Your task to perform on an android device: Check the settings for the Amazon Alexa app Image 0: 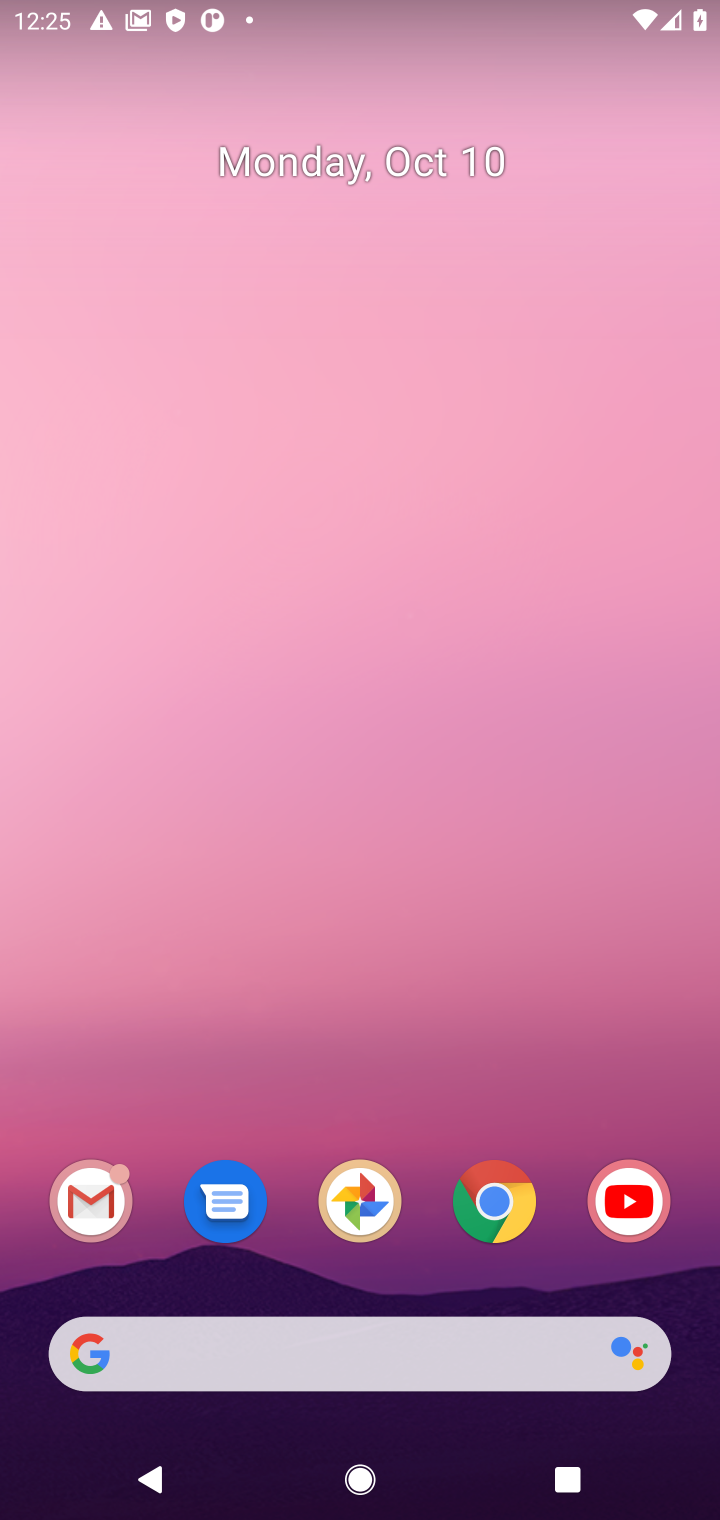
Step 0: drag from (419, 1145) to (446, 162)
Your task to perform on an android device: Check the settings for the Amazon Alexa app Image 1: 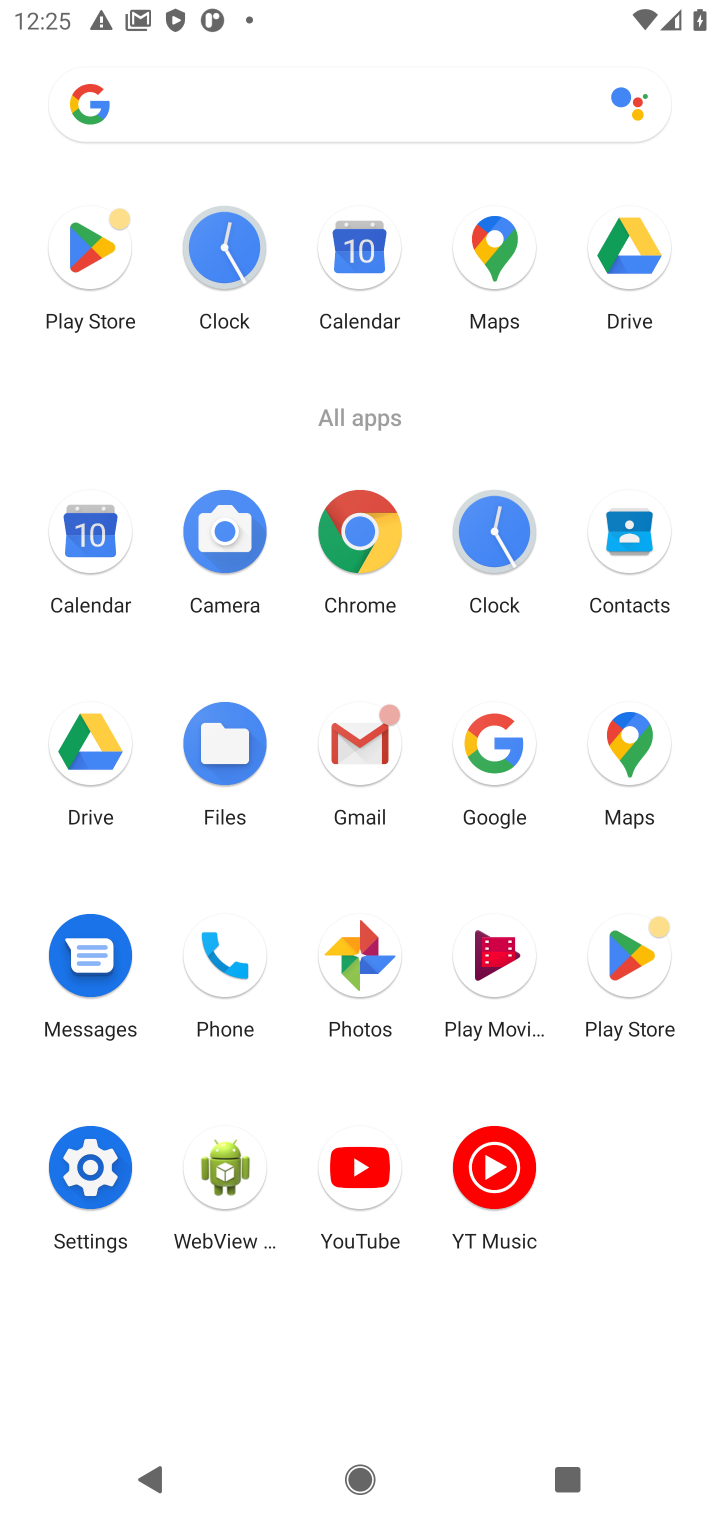
Step 1: task complete